Your task to perform on an android device: change the clock display to show seconds Image 0: 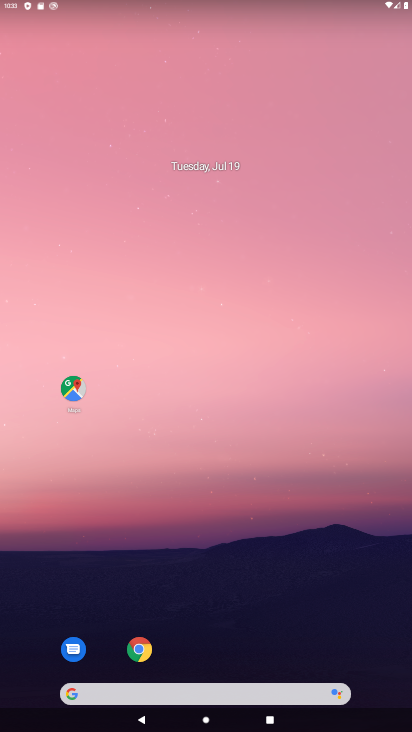
Step 0: drag from (279, 640) to (389, 174)
Your task to perform on an android device: change the clock display to show seconds Image 1: 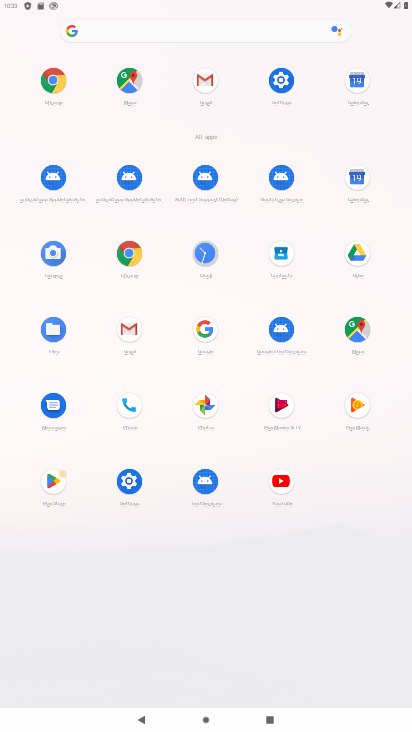
Step 1: click (203, 259)
Your task to perform on an android device: change the clock display to show seconds Image 2: 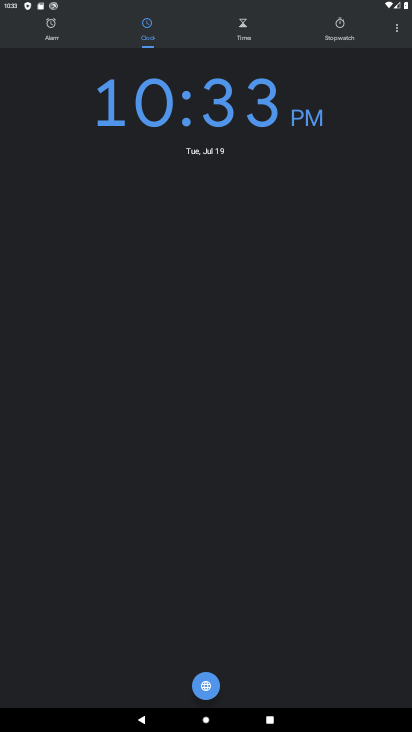
Step 2: click (396, 22)
Your task to perform on an android device: change the clock display to show seconds Image 3: 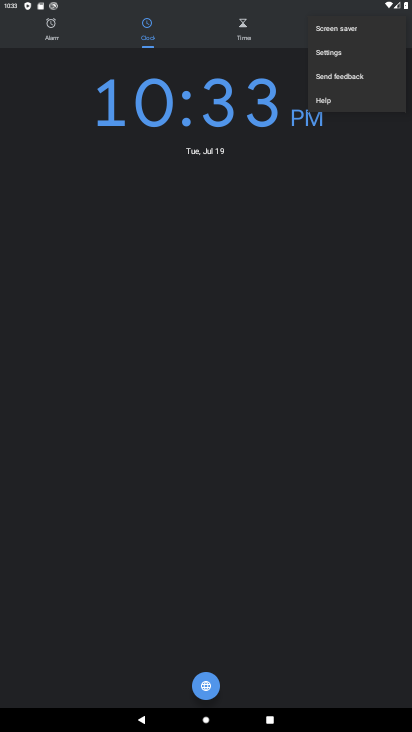
Step 3: click (347, 52)
Your task to perform on an android device: change the clock display to show seconds Image 4: 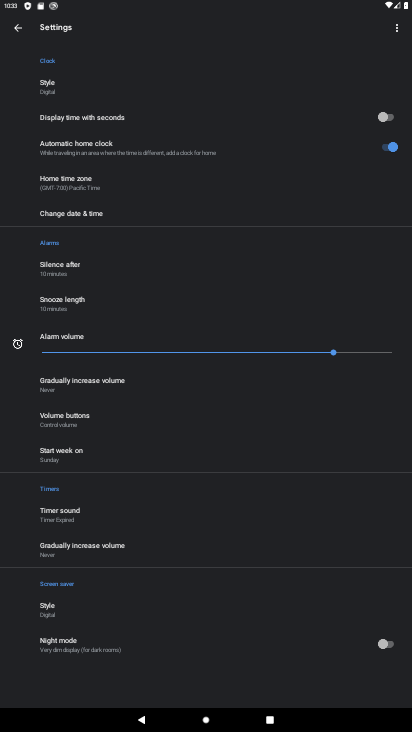
Step 4: click (392, 112)
Your task to perform on an android device: change the clock display to show seconds Image 5: 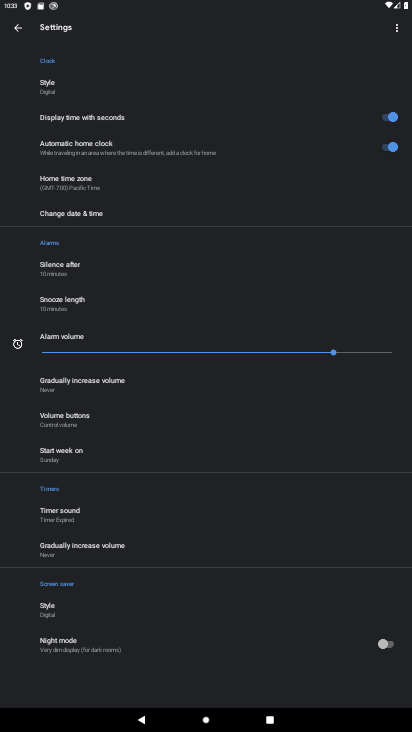
Step 5: task complete